Your task to perform on an android device: allow notifications from all sites in the chrome app Image 0: 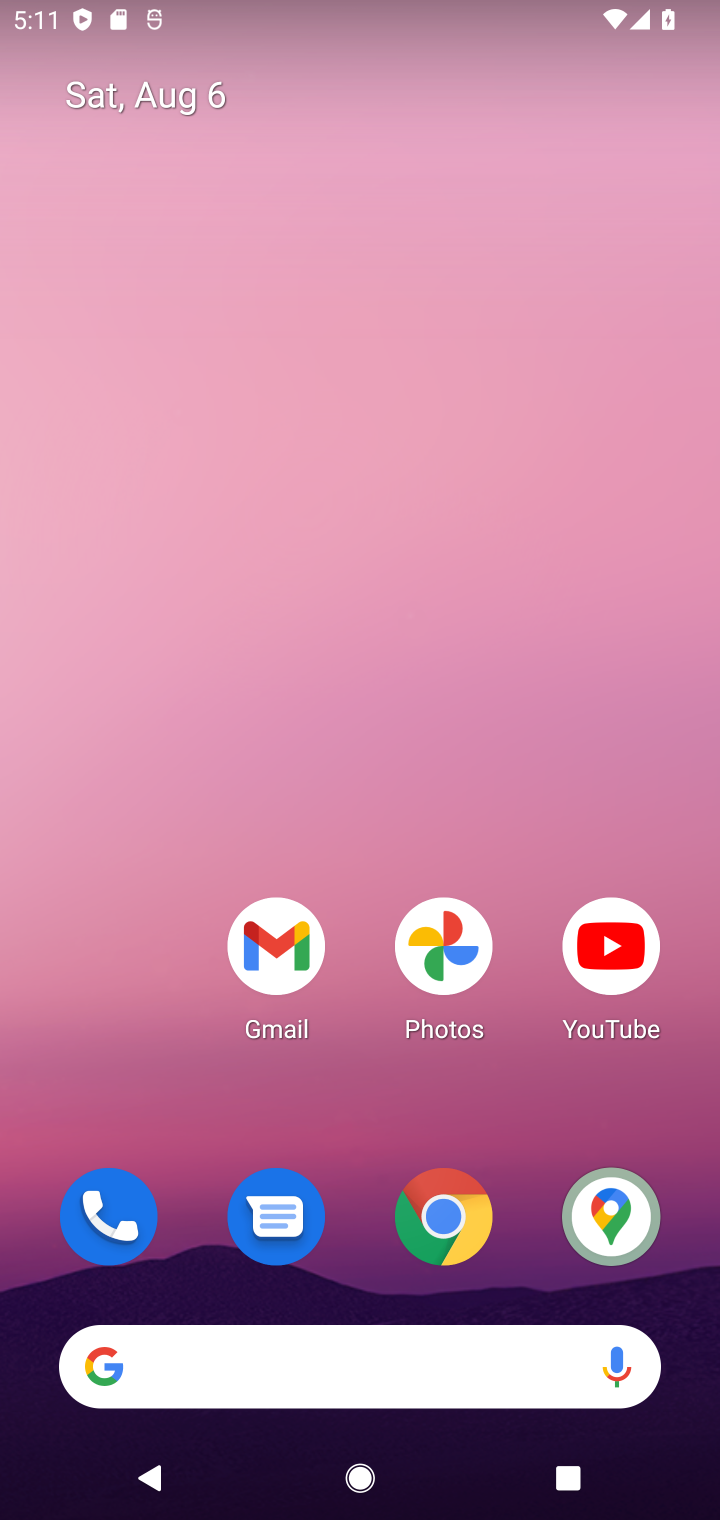
Step 0: drag from (287, 564) to (229, 247)
Your task to perform on an android device: allow notifications from all sites in the chrome app Image 1: 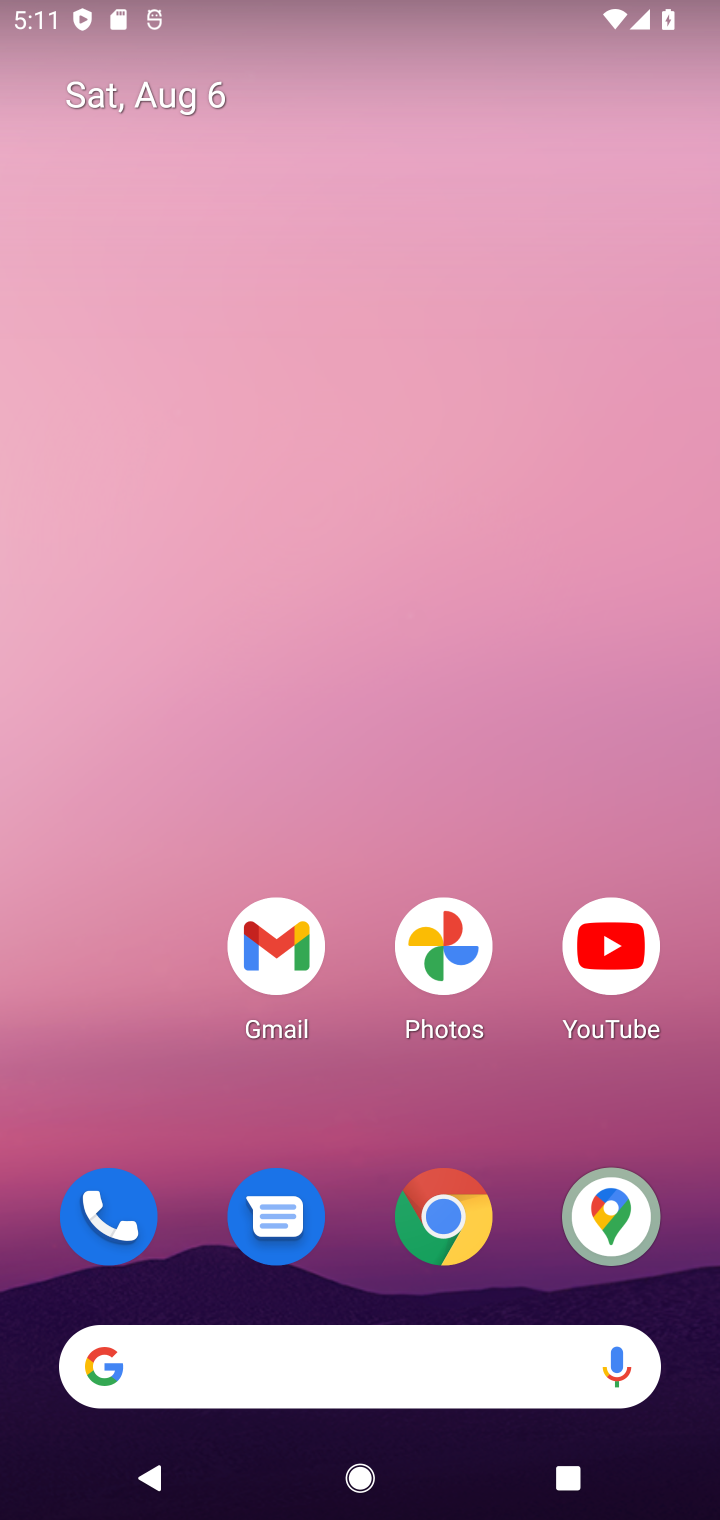
Step 1: drag from (188, 741) to (212, 157)
Your task to perform on an android device: allow notifications from all sites in the chrome app Image 2: 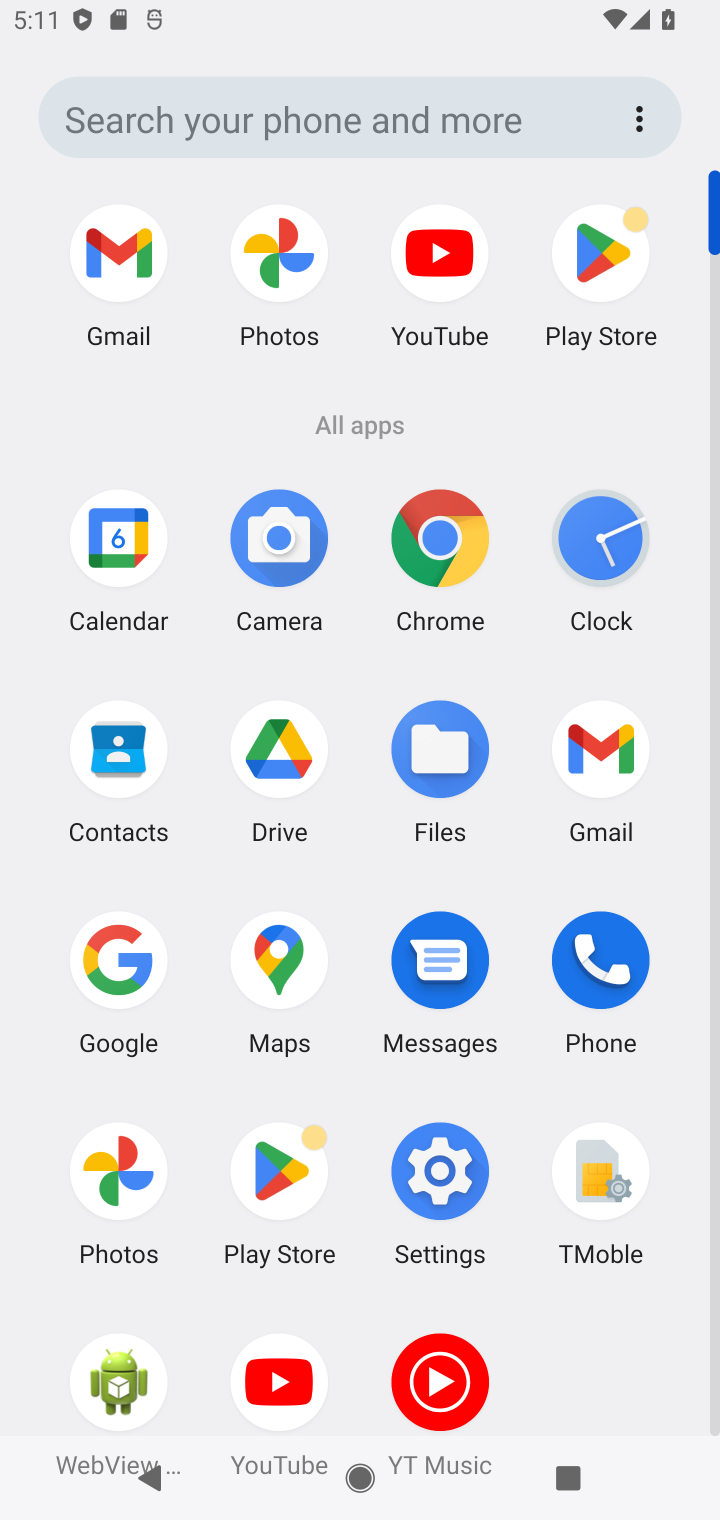
Step 2: click (448, 530)
Your task to perform on an android device: allow notifications from all sites in the chrome app Image 3: 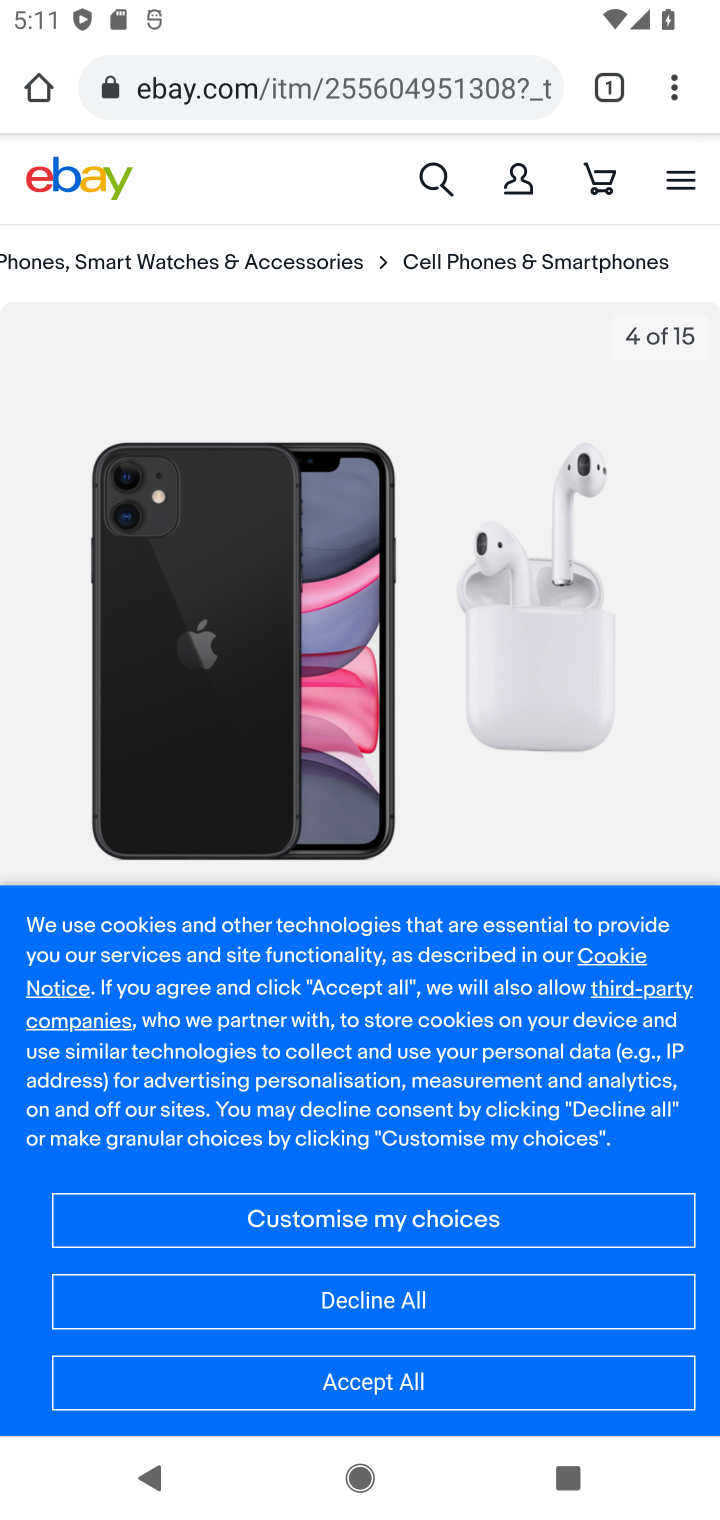
Step 3: drag from (671, 72) to (491, 1034)
Your task to perform on an android device: allow notifications from all sites in the chrome app Image 4: 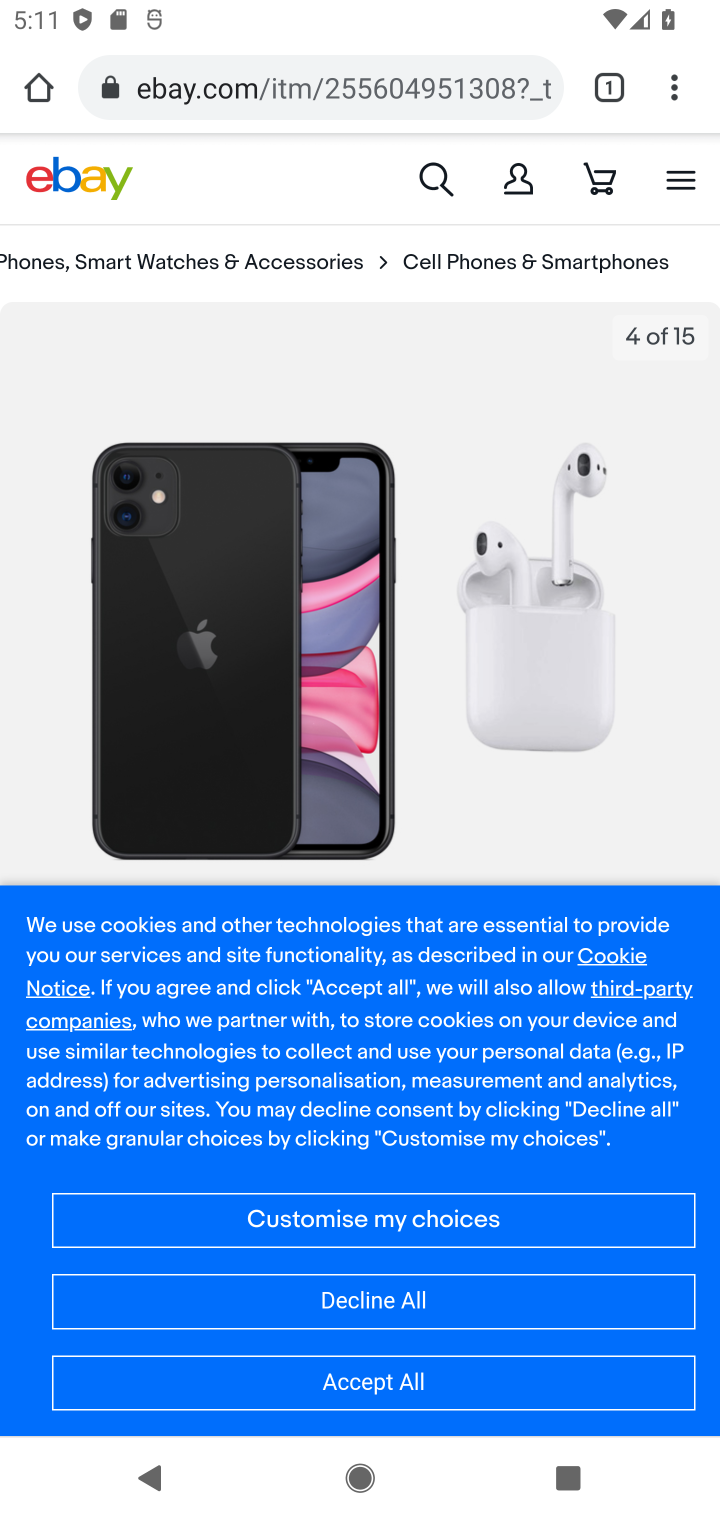
Step 4: drag from (667, 77) to (419, 1085)
Your task to perform on an android device: allow notifications from all sites in the chrome app Image 5: 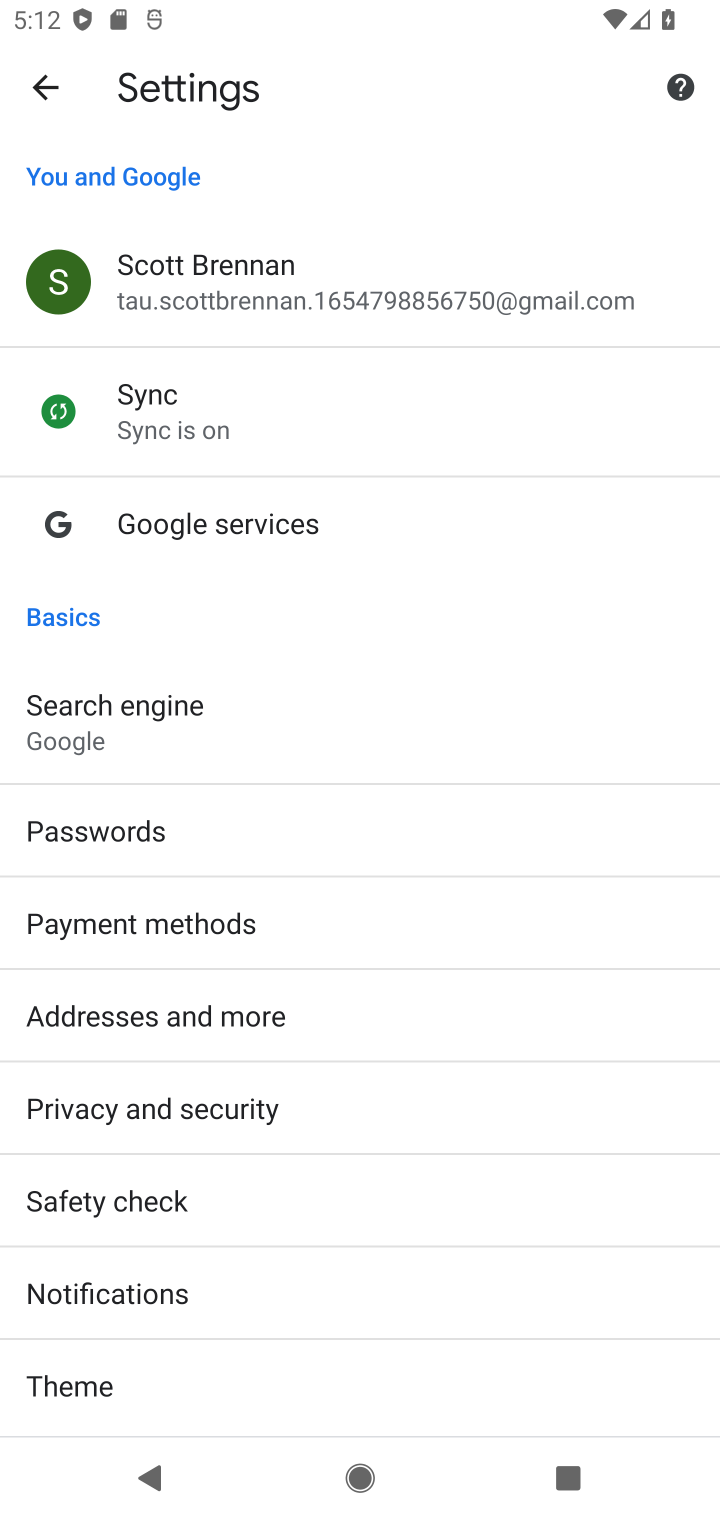
Step 5: click (116, 1281)
Your task to perform on an android device: allow notifications from all sites in the chrome app Image 6: 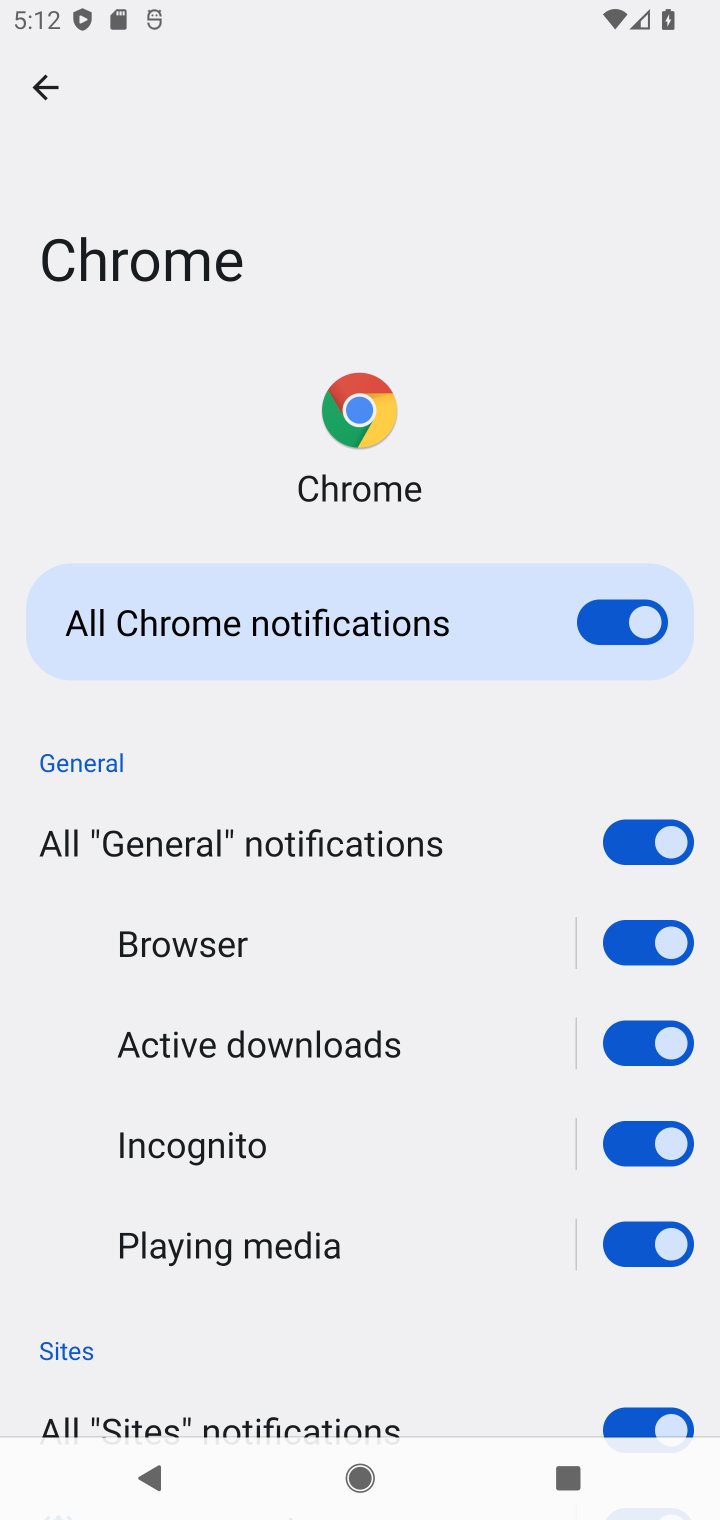
Step 6: task complete